Your task to perform on an android device: check out phone information Image 0: 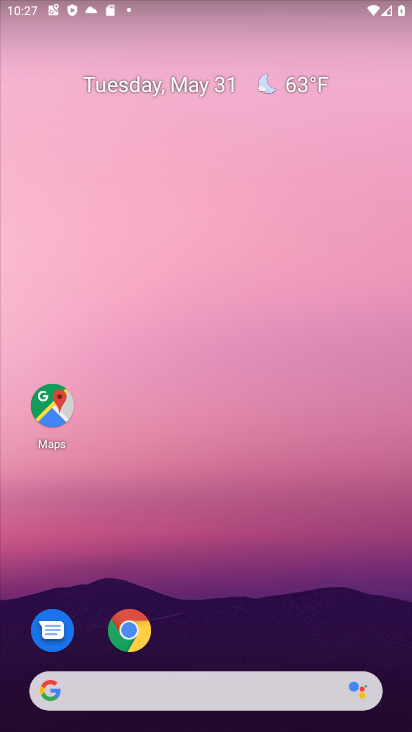
Step 0: drag from (265, 571) to (298, 117)
Your task to perform on an android device: check out phone information Image 1: 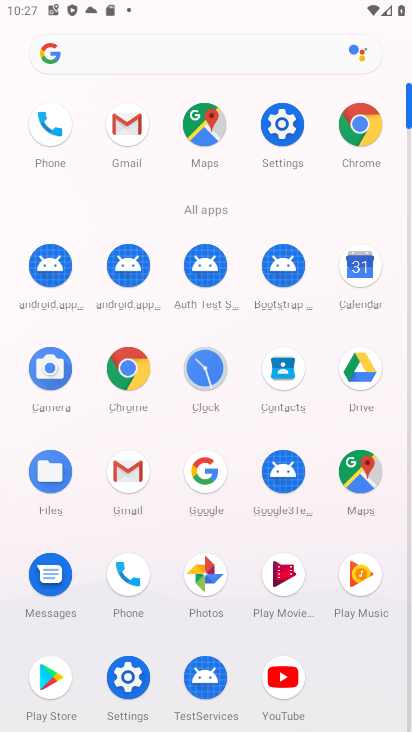
Step 1: click (104, 578)
Your task to perform on an android device: check out phone information Image 2: 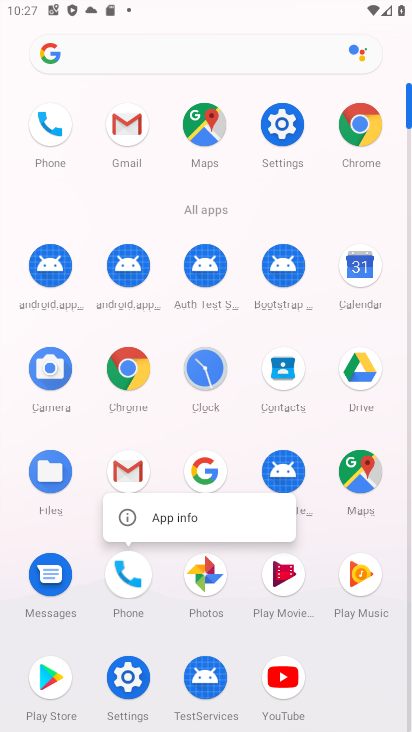
Step 2: click (200, 508)
Your task to perform on an android device: check out phone information Image 3: 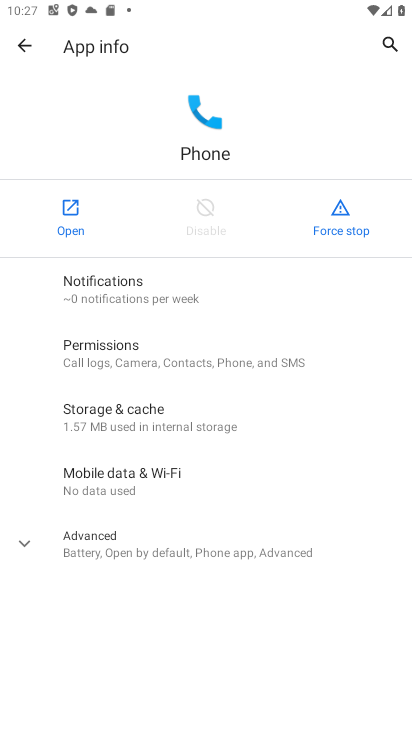
Step 3: task complete